Your task to perform on an android device: turn off wifi Image 0: 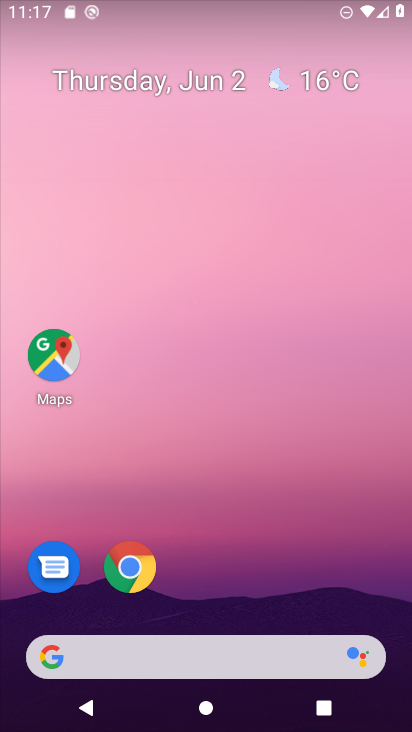
Step 0: drag from (294, 561) to (253, 170)
Your task to perform on an android device: turn off wifi Image 1: 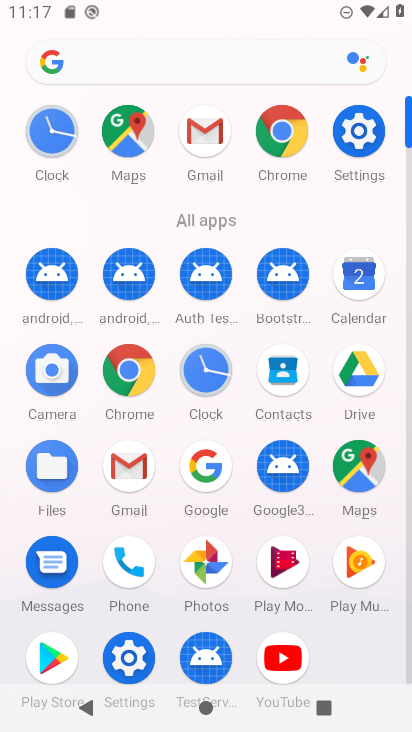
Step 1: click (353, 130)
Your task to perform on an android device: turn off wifi Image 2: 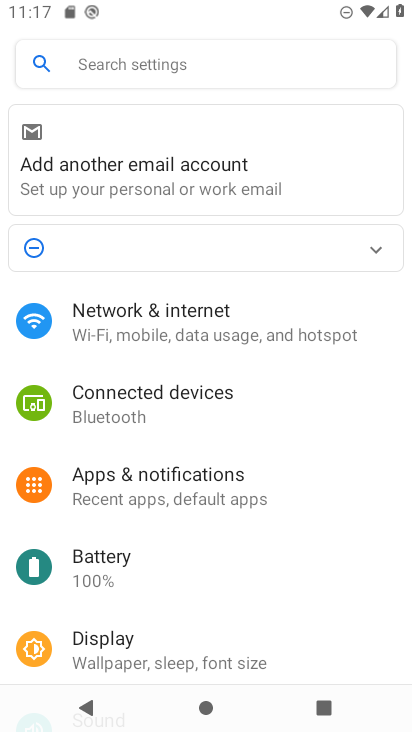
Step 2: click (110, 331)
Your task to perform on an android device: turn off wifi Image 3: 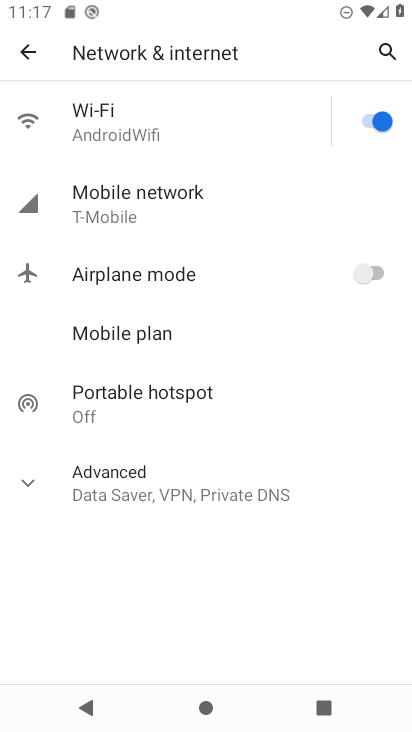
Step 3: click (360, 123)
Your task to perform on an android device: turn off wifi Image 4: 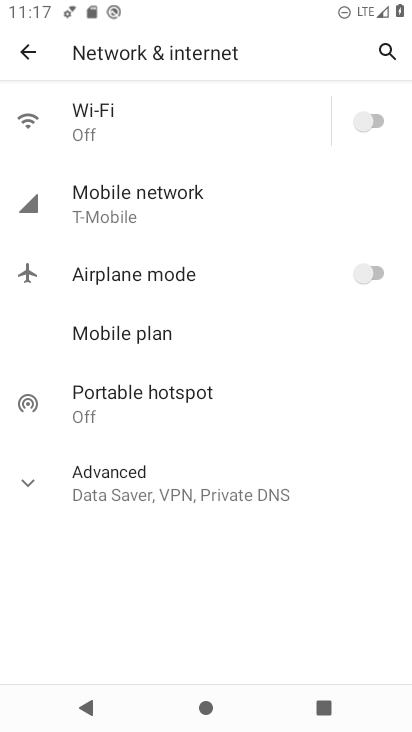
Step 4: task complete